Your task to perform on an android device: Go to Google Image 0: 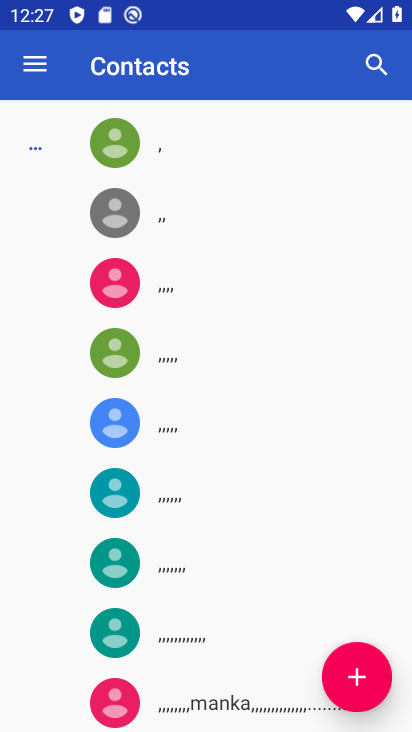
Step 0: press home button
Your task to perform on an android device: Go to Google Image 1: 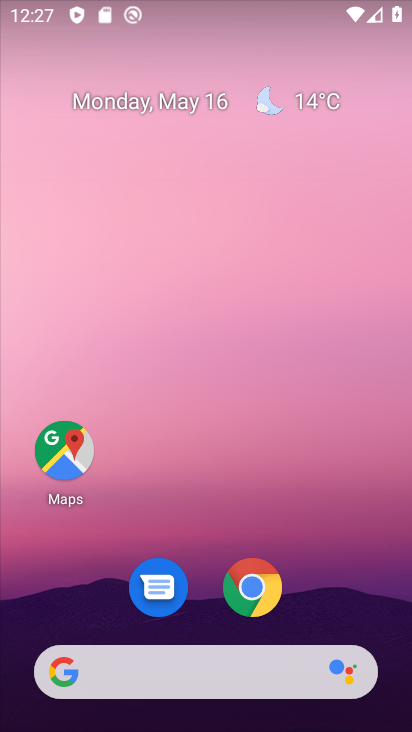
Step 1: click (254, 584)
Your task to perform on an android device: Go to Google Image 2: 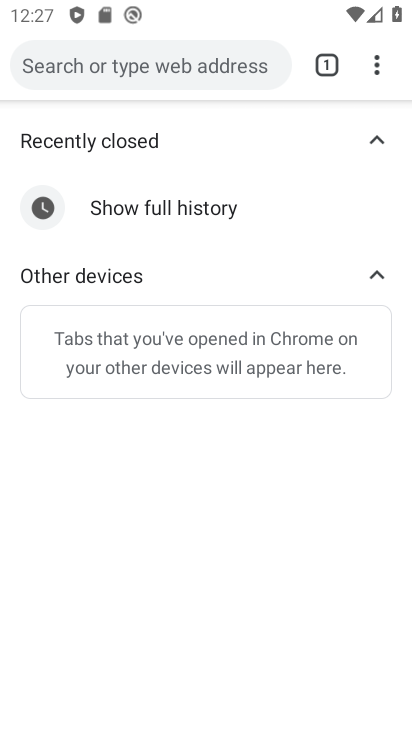
Step 2: press home button
Your task to perform on an android device: Go to Google Image 3: 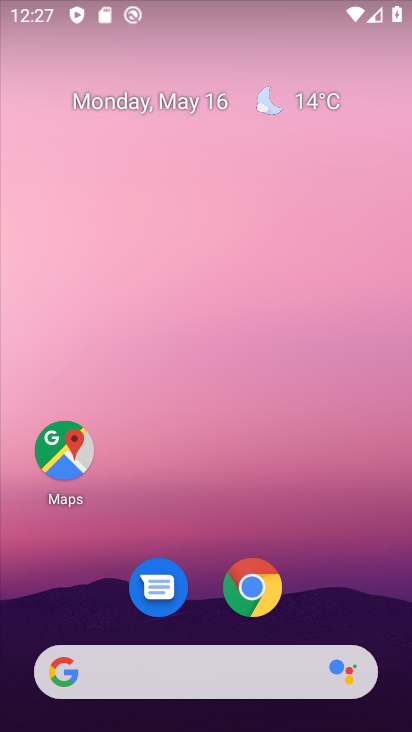
Step 3: drag from (212, 726) to (208, 199)
Your task to perform on an android device: Go to Google Image 4: 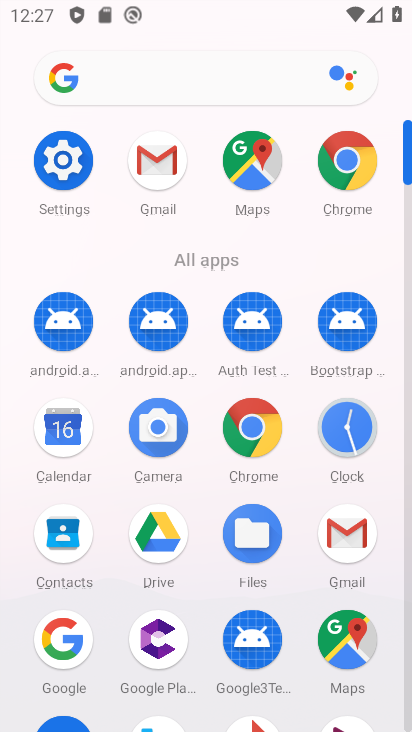
Step 4: click (69, 636)
Your task to perform on an android device: Go to Google Image 5: 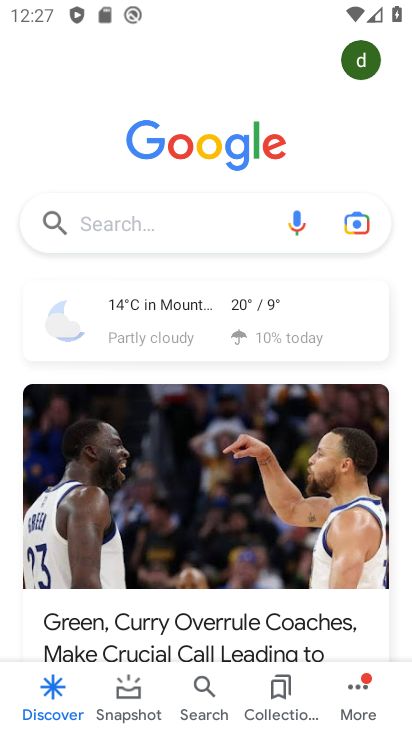
Step 5: task complete